Your task to perform on an android device: turn off javascript in the chrome app Image 0: 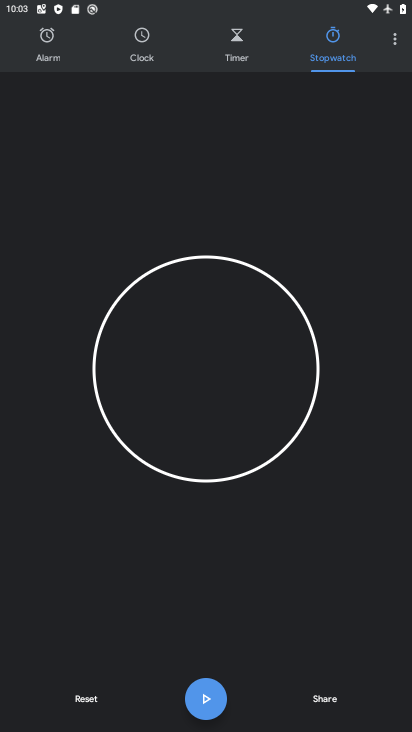
Step 0: press home button
Your task to perform on an android device: turn off javascript in the chrome app Image 1: 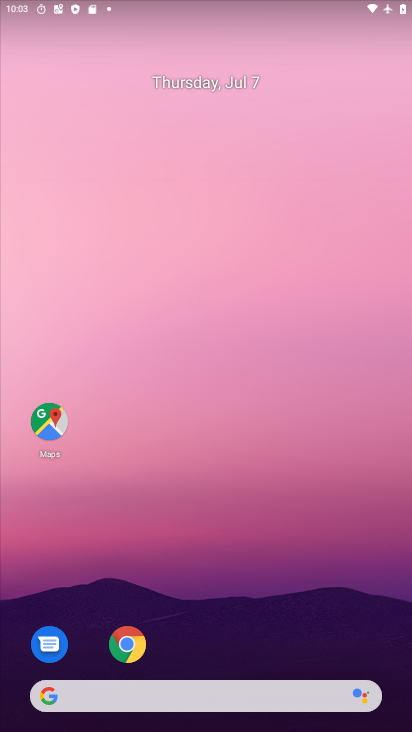
Step 1: drag from (245, 636) to (272, 153)
Your task to perform on an android device: turn off javascript in the chrome app Image 2: 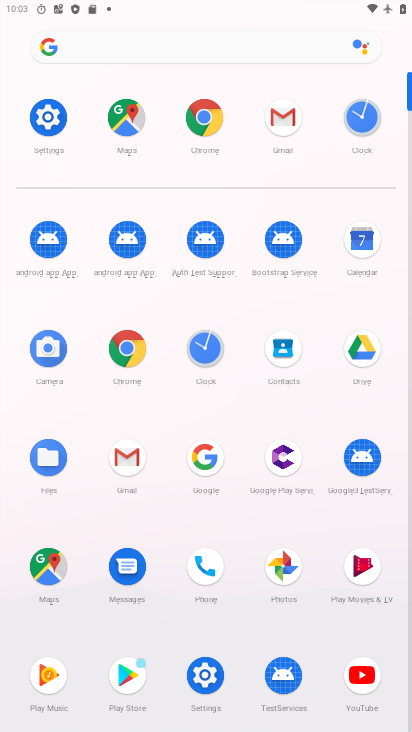
Step 2: click (206, 121)
Your task to perform on an android device: turn off javascript in the chrome app Image 3: 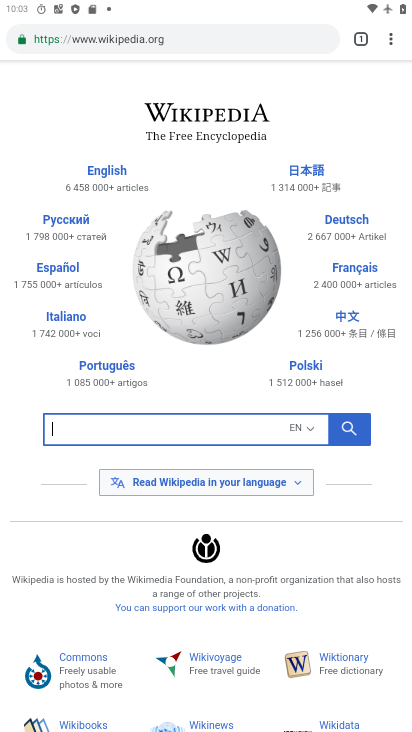
Step 3: drag from (393, 40) to (270, 474)
Your task to perform on an android device: turn off javascript in the chrome app Image 4: 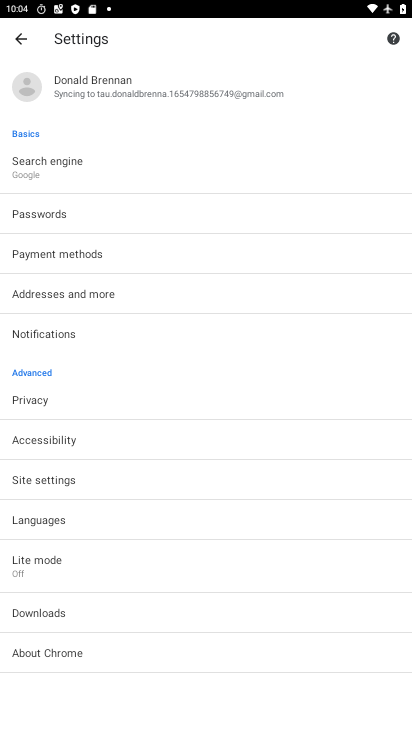
Step 4: click (92, 479)
Your task to perform on an android device: turn off javascript in the chrome app Image 5: 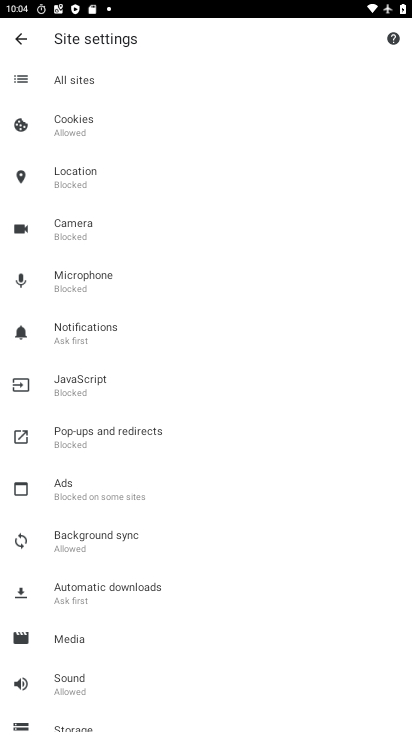
Step 5: click (64, 385)
Your task to perform on an android device: turn off javascript in the chrome app Image 6: 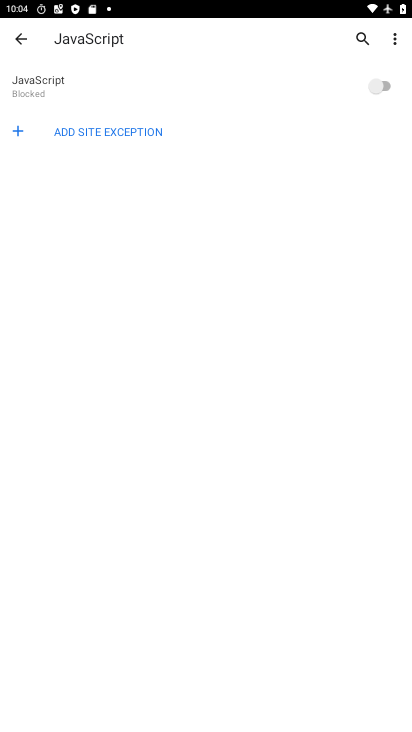
Step 6: task complete